Your task to perform on an android device: Open Google Chrome Image 0: 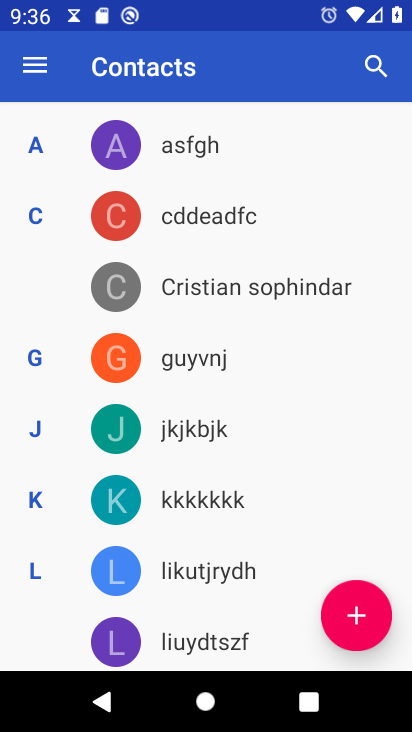
Step 0: press home button
Your task to perform on an android device: Open Google Chrome Image 1: 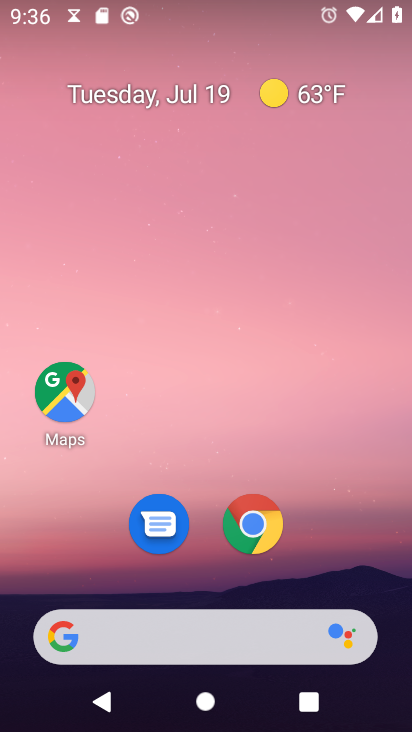
Step 1: click (249, 535)
Your task to perform on an android device: Open Google Chrome Image 2: 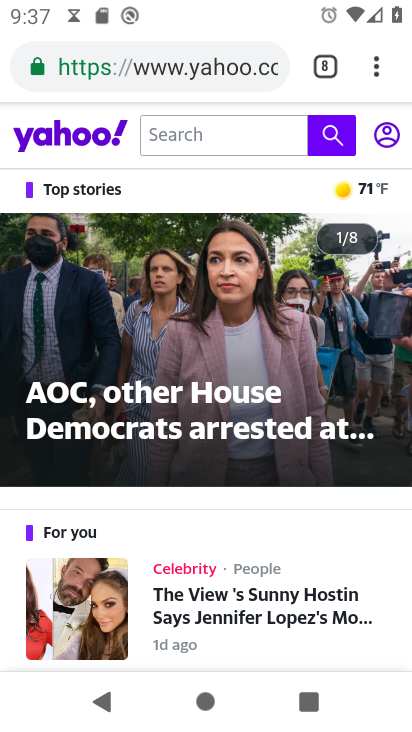
Step 2: task complete